Your task to perform on an android device: turn off priority inbox in the gmail app Image 0: 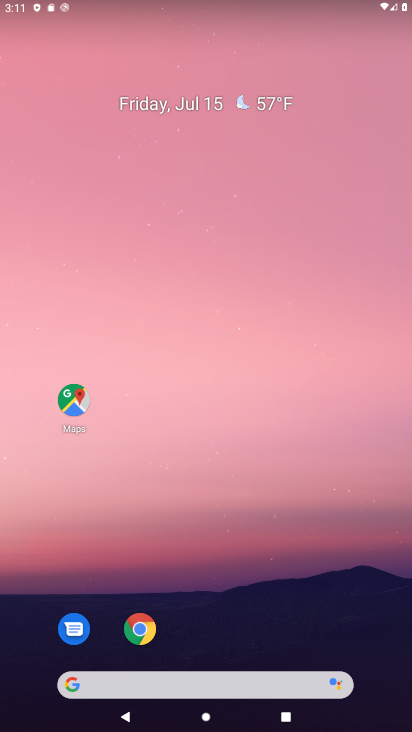
Step 0: drag from (189, 311) to (175, 144)
Your task to perform on an android device: turn off priority inbox in the gmail app Image 1: 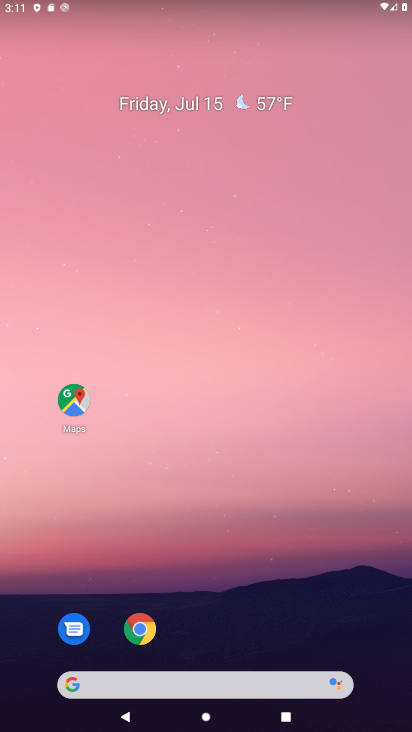
Step 1: drag from (200, 518) to (147, 84)
Your task to perform on an android device: turn off priority inbox in the gmail app Image 2: 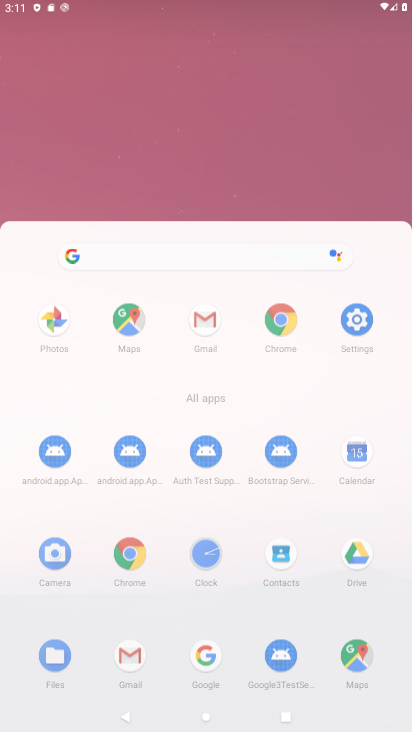
Step 2: click (166, 135)
Your task to perform on an android device: turn off priority inbox in the gmail app Image 3: 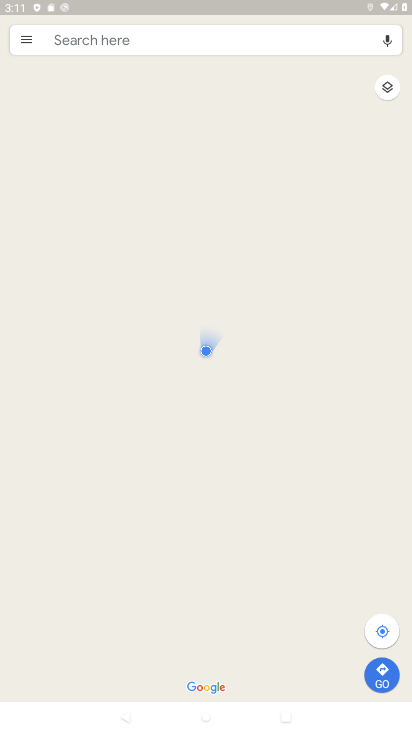
Step 3: press back button
Your task to perform on an android device: turn off priority inbox in the gmail app Image 4: 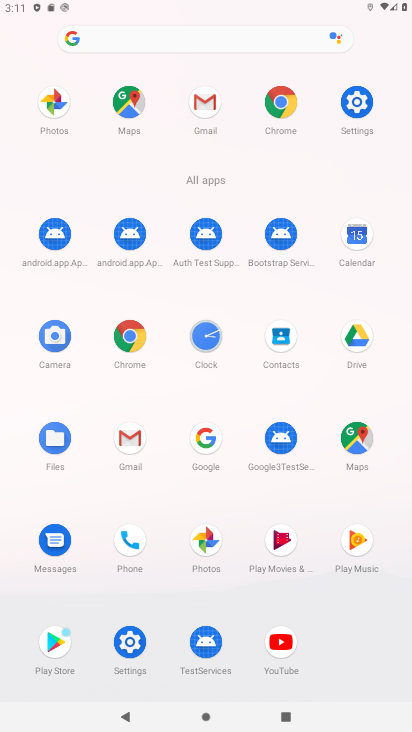
Step 4: press home button
Your task to perform on an android device: turn off priority inbox in the gmail app Image 5: 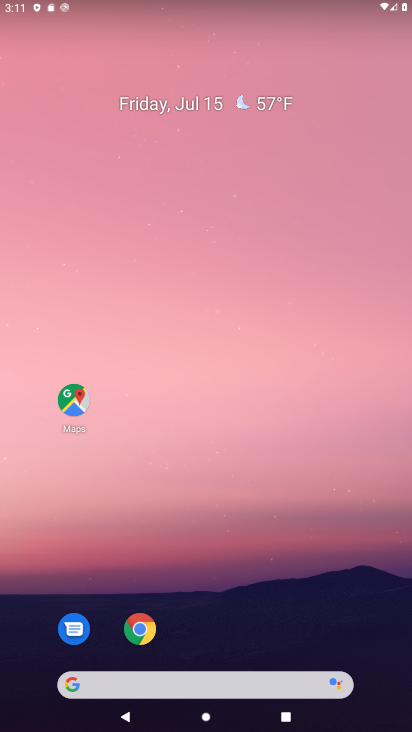
Step 5: drag from (157, 349) to (131, 156)
Your task to perform on an android device: turn off priority inbox in the gmail app Image 6: 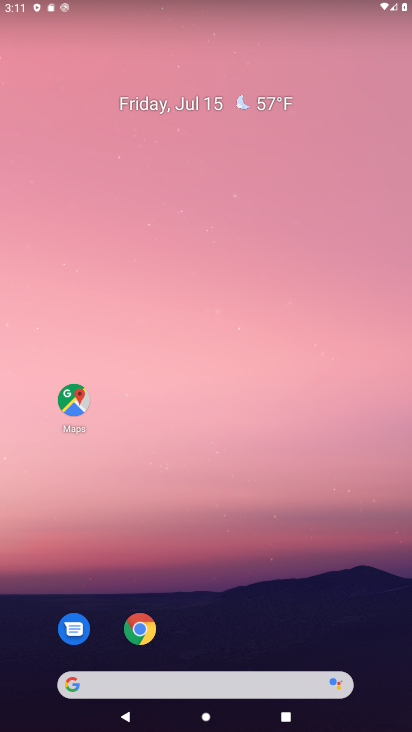
Step 6: drag from (228, 576) to (194, 153)
Your task to perform on an android device: turn off priority inbox in the gmail app Image 7: 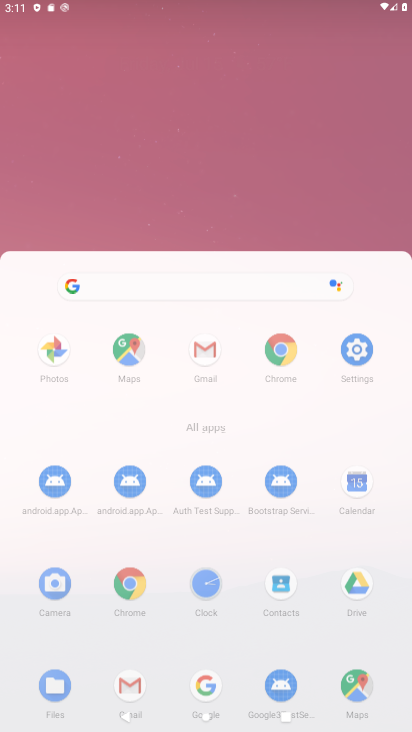
Step 7: drag from (214, 562) to (192, 49)
Your task to perform on an android device: turn off priority inbox in the gmail app Image 8: 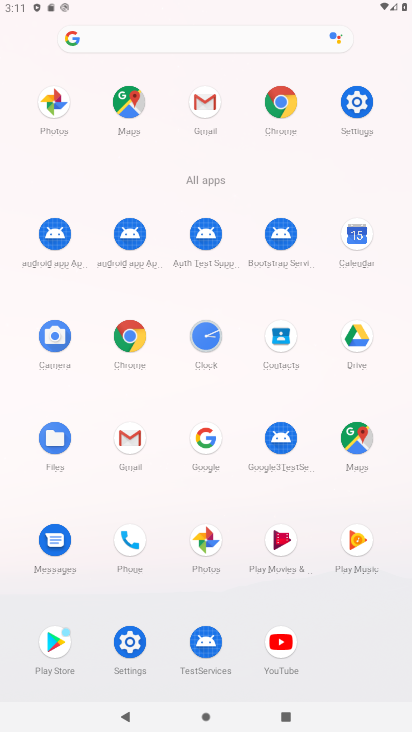
Step 8: click (121, 436)
Your task to perform on an android device: turn off priority inbox in the gmail app Image 9: 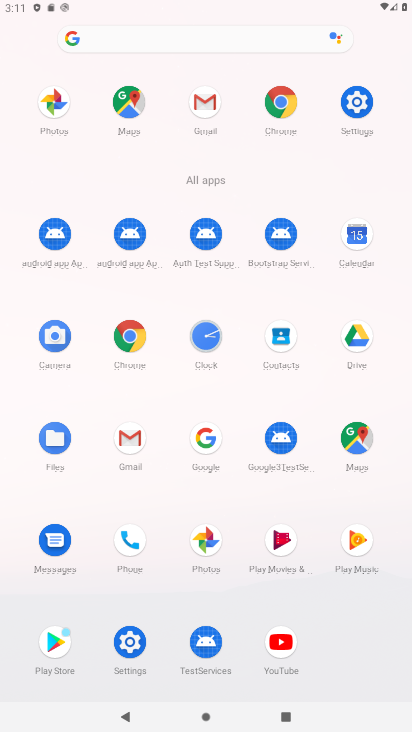
Step 9: click (133, 447)
Your task to perform on an android device: turn off priority inbox in the gmail app Image 10: 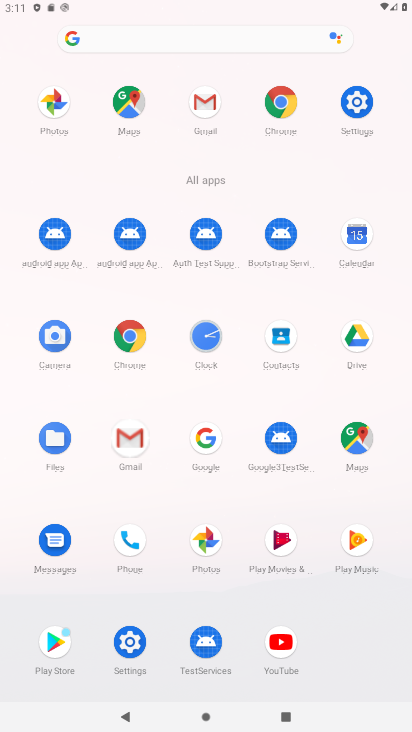
Step 10: click (136, 448)
Your task to perform on an android device: turn off priority inbox in the gmail app Image 11: 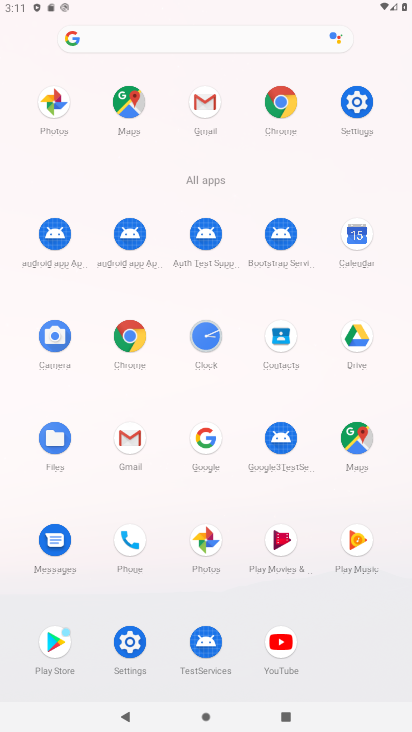
Step 11: click (122, 432)
Your task to perform on an android device: turn off priority inbox in the gmail app Image 12: 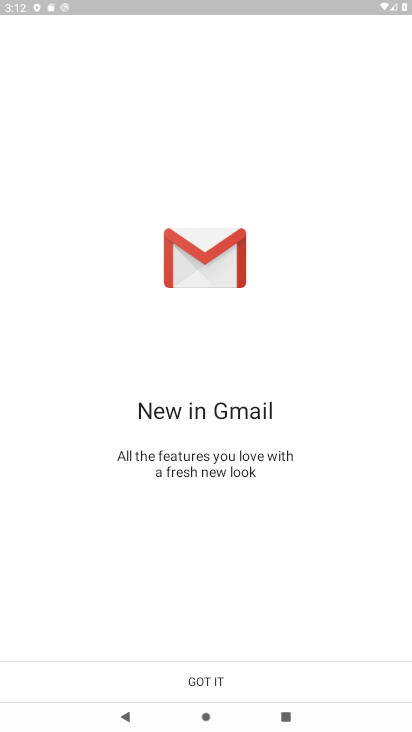
Step 12: click (200, 685)
Your task to perform on an android device: turn off priority inbox in the gmail app Image 13: 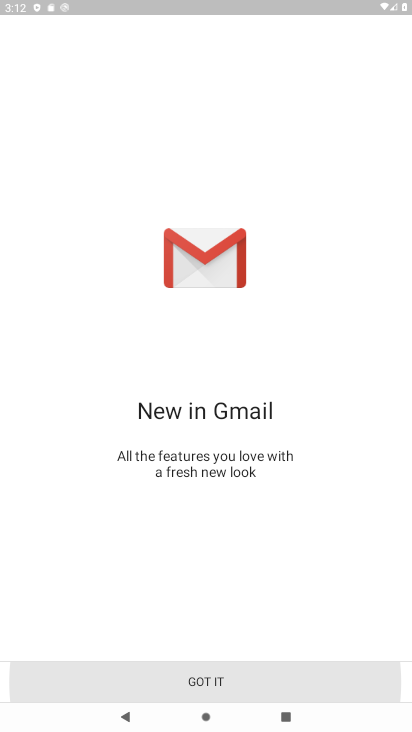
Step 13: click (208, 670)
Your task to perform on an android device: turn off priority inbox in the gmail app Image 14: 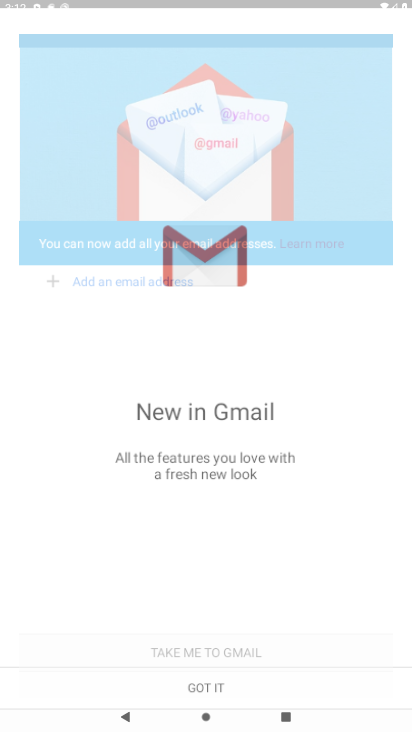
Step 14: click (213, 675)
Your task to perform on an android device: turn off priority inbox in the gmail app Image 15: 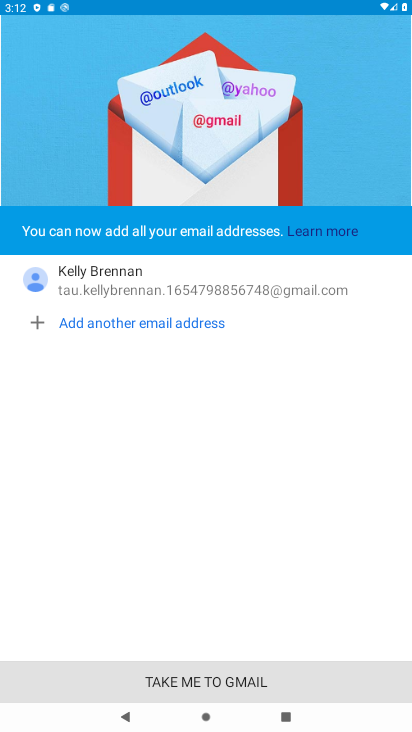
Step 15: click (215, 676)
Your task to perform on an android device: turn off priority inbox in the gmail app Image 16: 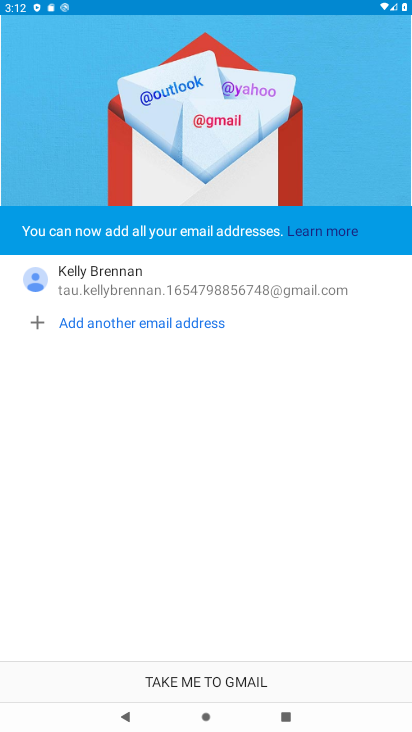
Step 16: click (215, 676)
Your task to perform on an android device: turn off priority inbox in the gmail app Image 17: 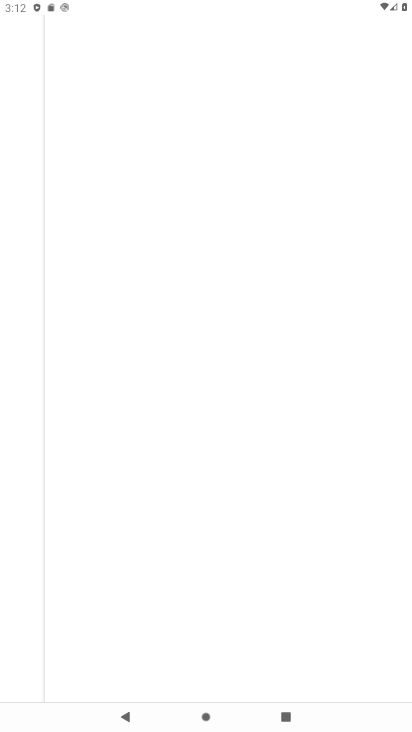
Step 17: click (215, 676)
Your task to perform on an android device: turn off priority inbox in the gmail app Image 18: 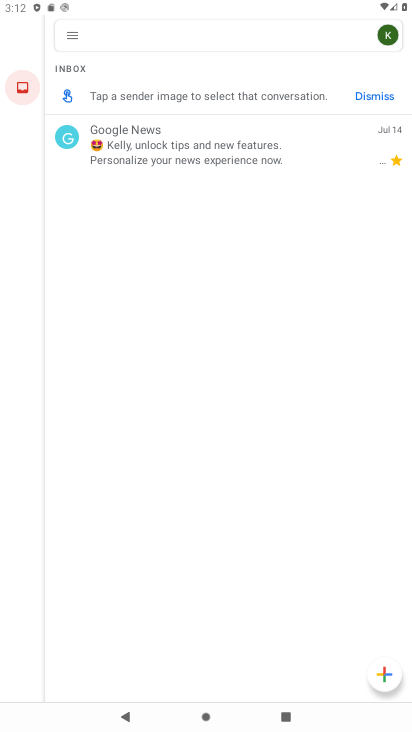
Step 18: drag from (70, 39) to (59, 237)
Your task to perform on an android device: turn off priority inbox in the gmail app Image 19: 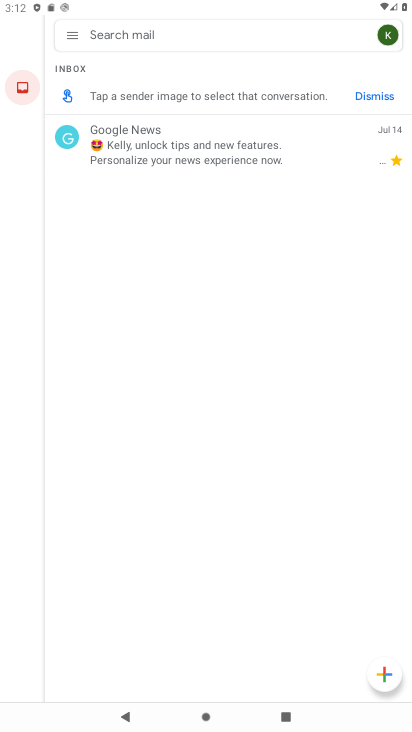
Step 19: drag from (72, 38) to (78, 339)
Your task to perform on an android device: turn off priority inbox in the gmail app Image 20: 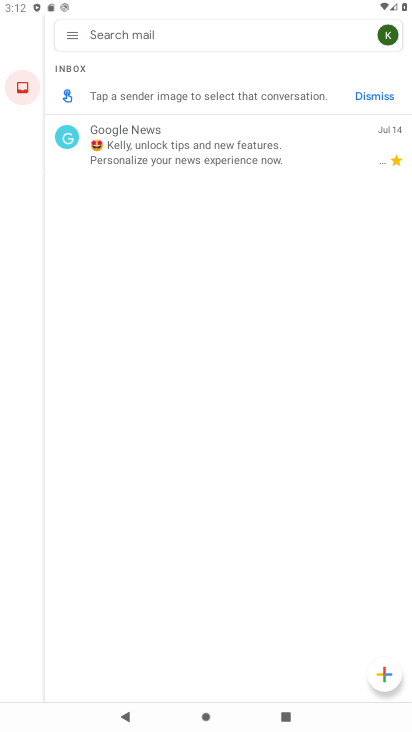
Step 20: click (69, 29)
Your task to perform on an android device: turn off priority inbox in the gmail app Image 21: 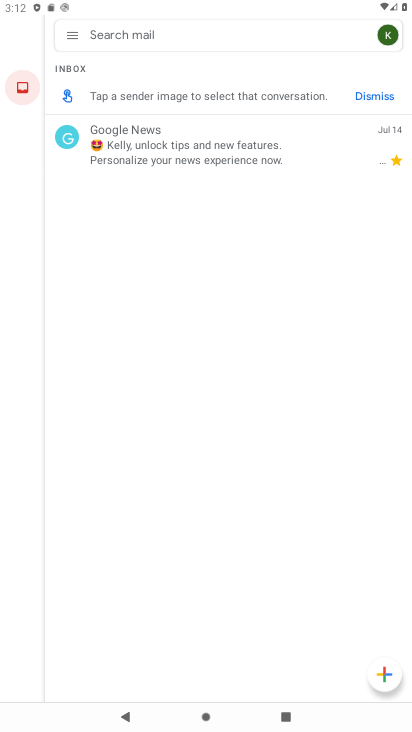
Step 21: click (75, 37)
Your task to perform on an android device: turn off priority inbox in the gmail app Image 22: 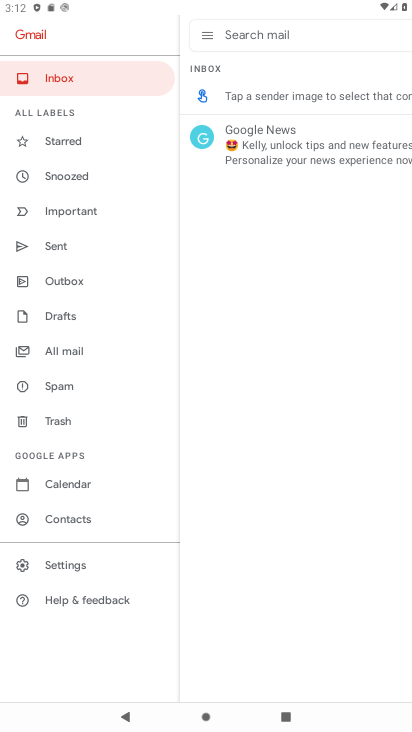
Step 22: click (66, 561)
Your task to perform on an android device: turn off priority inbox in the gmail app Image 23: 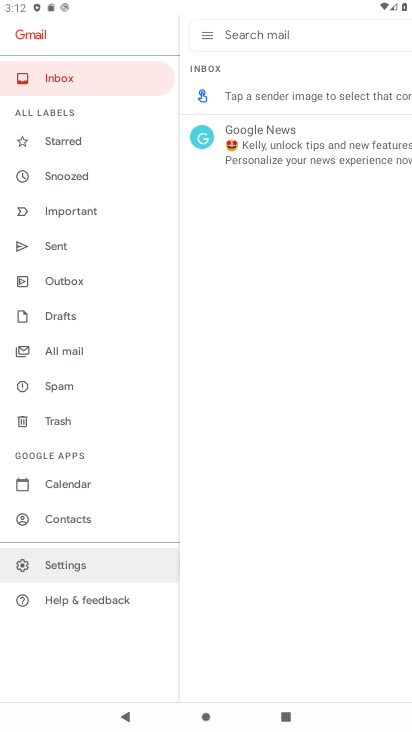
Step 23: click (69, 557)
Your task to perform on an android device: turn off priority inbox in the gmail app Image 24: 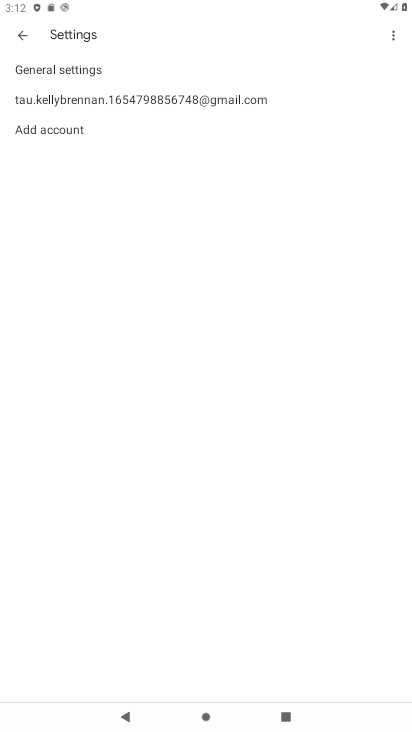
Step 24: click (132, 103)
Your task to perform on an android device: turn off priority inbox in the gmail app Image 25: 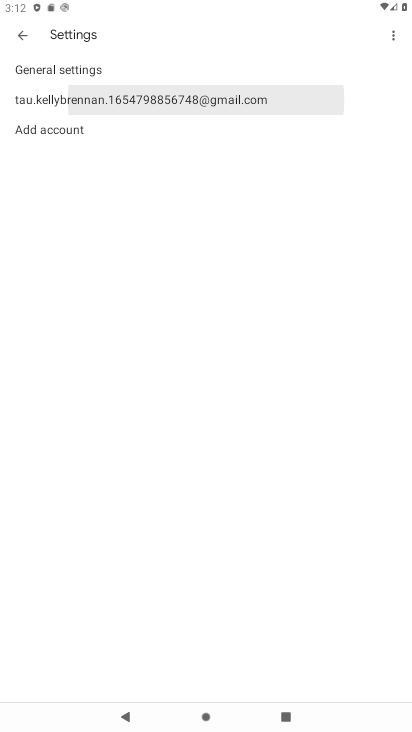
Step 25: click (132, 103)
Your task to perform on an android device: turn off priority inbox in the gmail app Image 26: 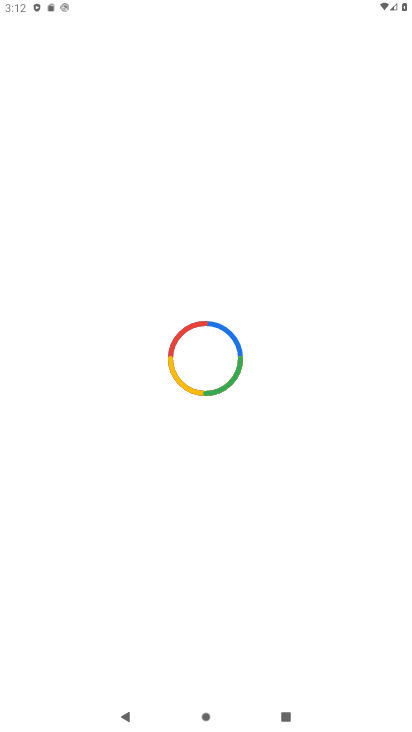
Step 26: press back button
Your task to perform on an android device: turn off priority inbox in the gmail app Image 27: 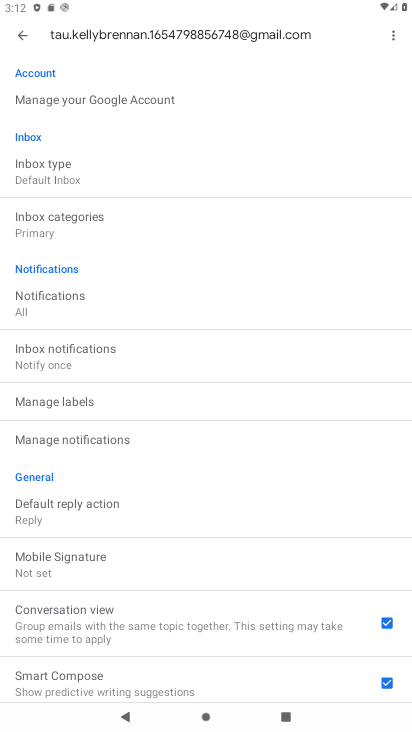
Step 27: click (38, 181)
Your task to perform on an android device: turn off priority inbox in the gmail app Image 28: 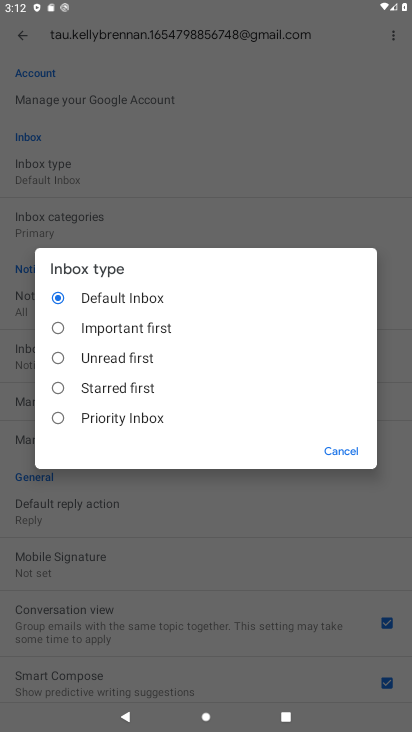
Step 28: click (342, 444)
Your task to perform on an android device: turn off priority inbox in the gmail app Image 29: 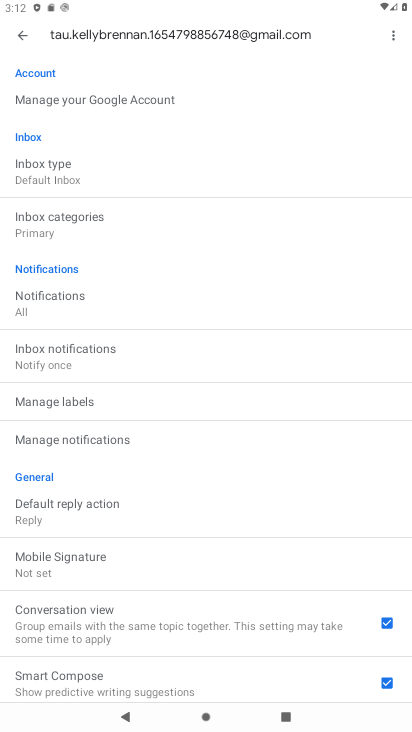
Step 29: task complete